Your task to perform on an android device: Search for sushi restaurants on Maps Image 0: 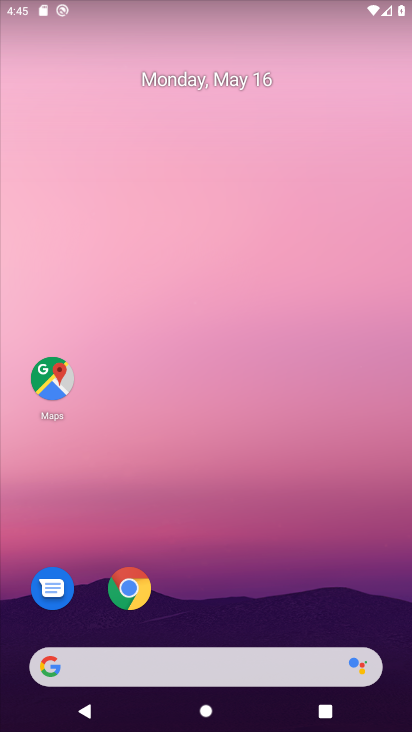
Step 0: drag from (319, 563) to (218, 59)
Your task to perform on an android device: Search for sushi restaurants on Maps Image 1: 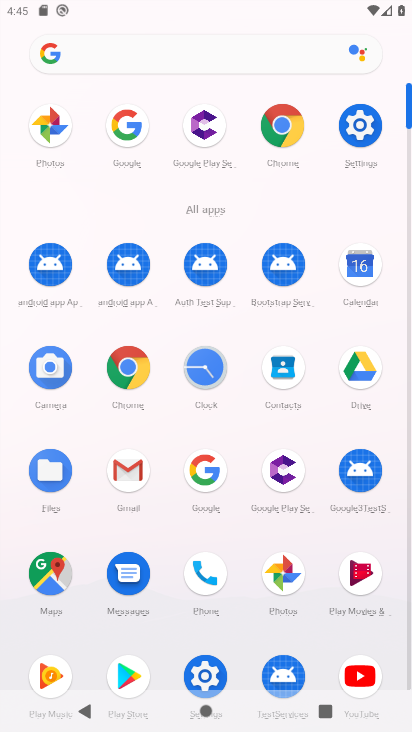
Step 1: click (53, 563)
Your task to perform on an android device: Search for sushi restaurants on Maps Image 2: 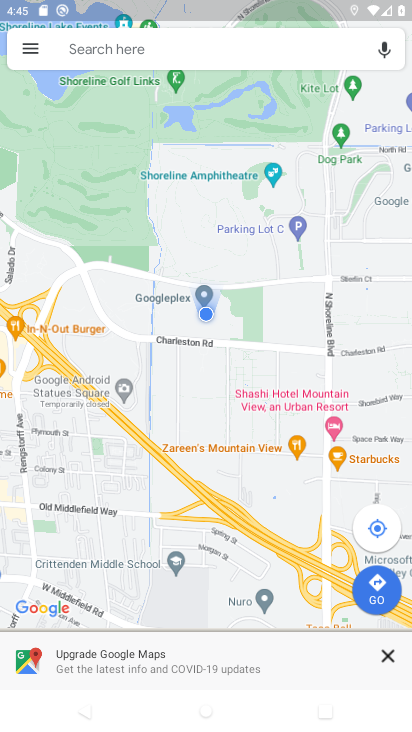
Step 2: click (198, 47)
Your task to perform on an android device: Search for sushi restaurants on Maps Image 3: 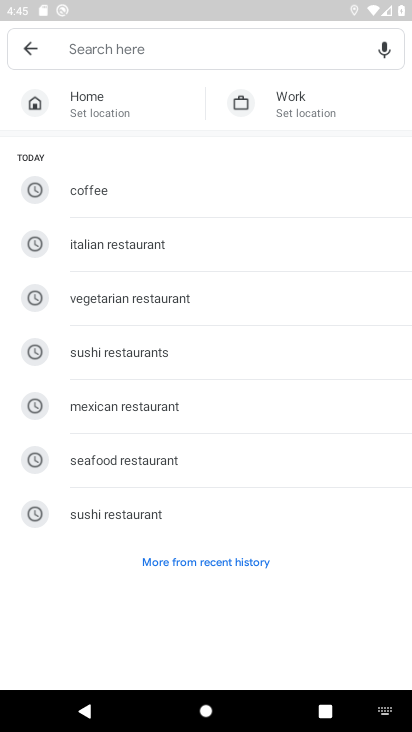
Step 3: click (167, 348)
Your task to perform on an android device: Search for sushi restaurants on Maps Image 4: 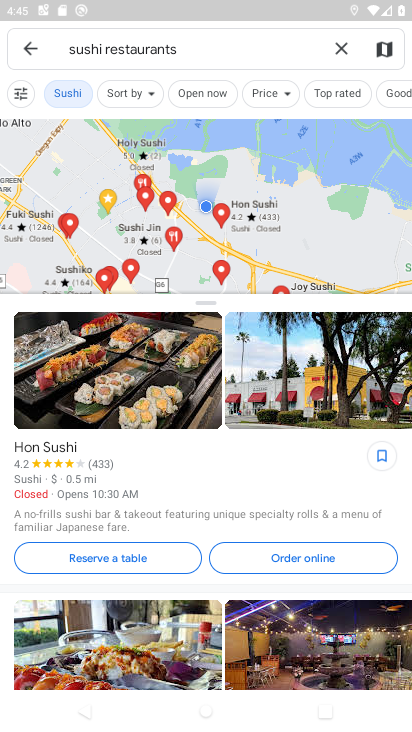
Step 4: task complete